Your task to perform on an android device: find photos in the google photos app Image 0: 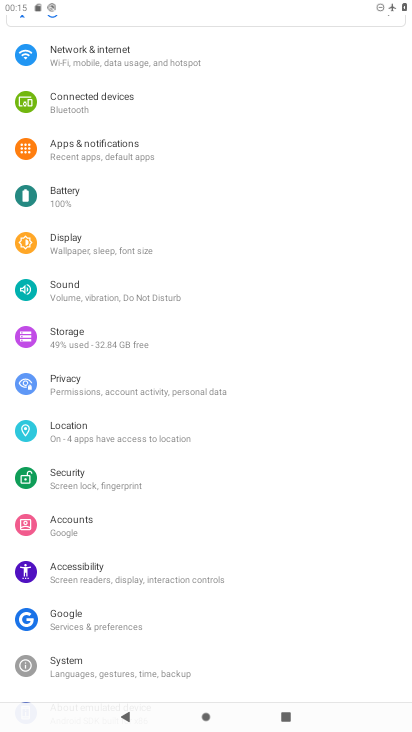
Step 0: press home button
Your task to perform on an android device: find photos in the google photos app Image 1: 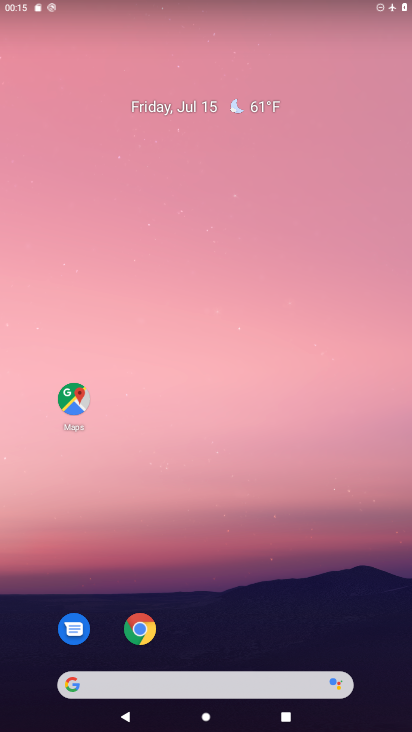
Step 1: drag from (188, 634) to (207, 122)
Your task to perform on an android device: find photos in the google photos app Image 2: 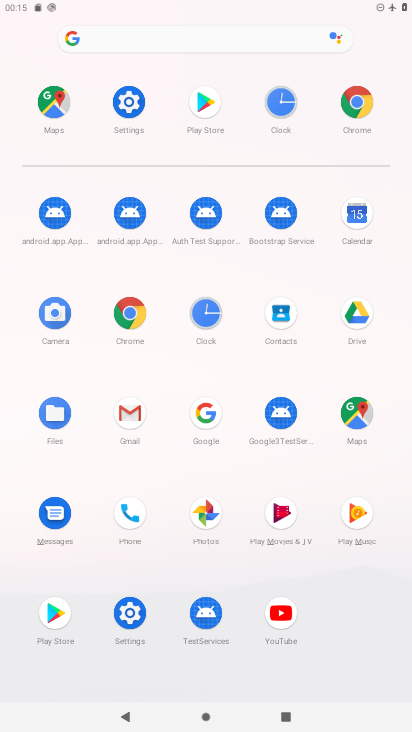
Step 2: click (209, 516)
Your task to perform on an android device: find photos in the google photos app Image 3: 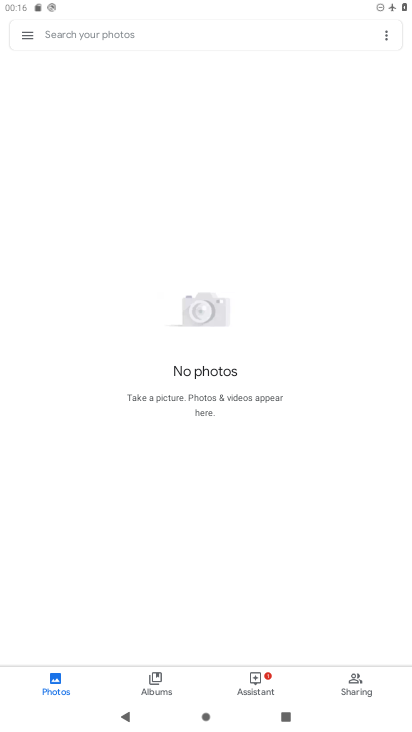
Step 3: click (35, 37)
Your task to perform on an android device: find photos in the google photos app Image 4: 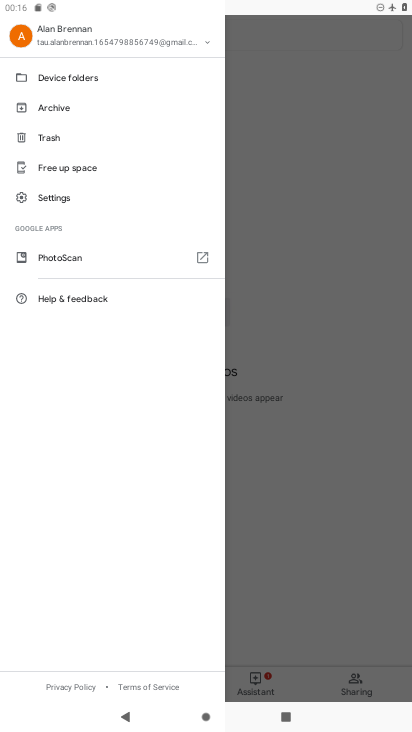
Step 4: task complete